Your task to perform on an android device: install app "Chime – Mobile Banking" Image 0: 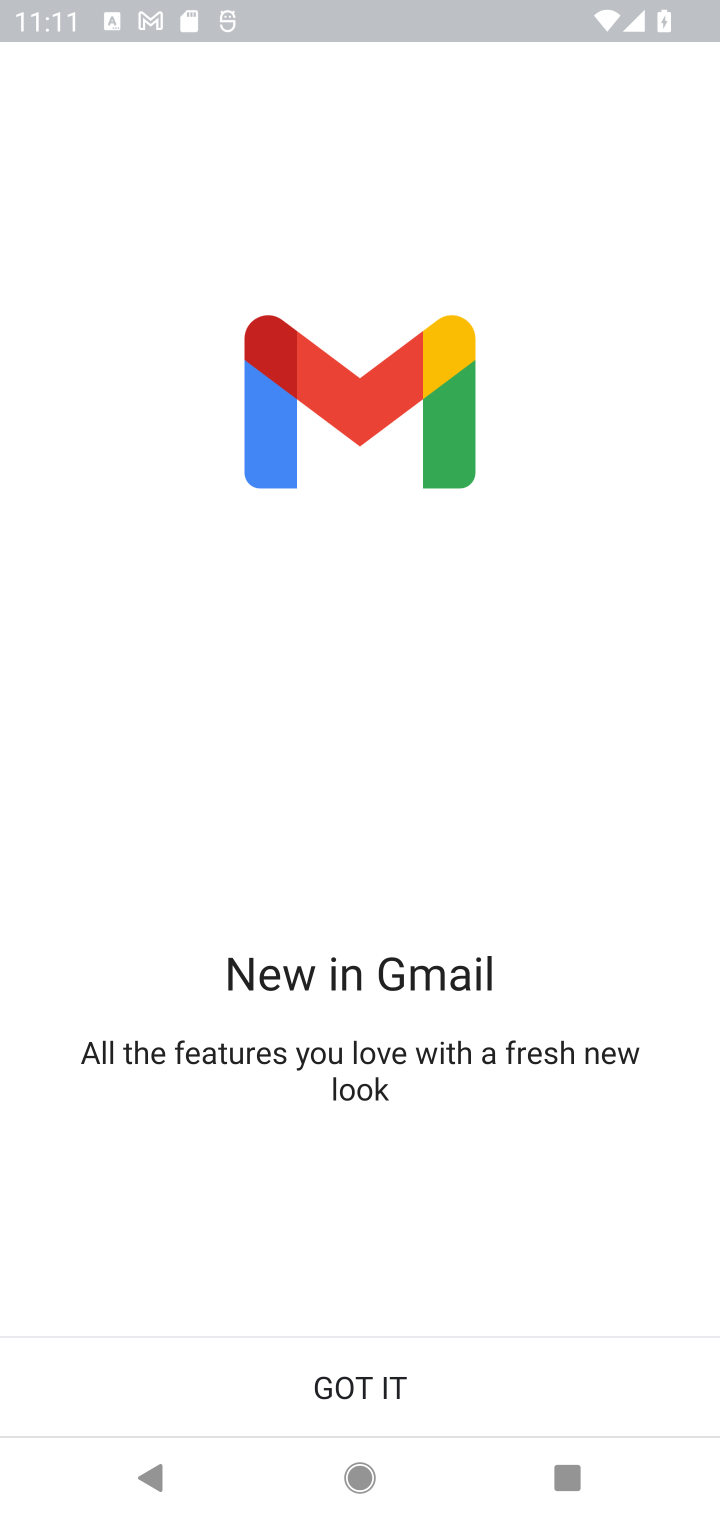
Step 0: press home button
Your task to perform on an android device: install app "Chime – Mobile Banking" Image 1: 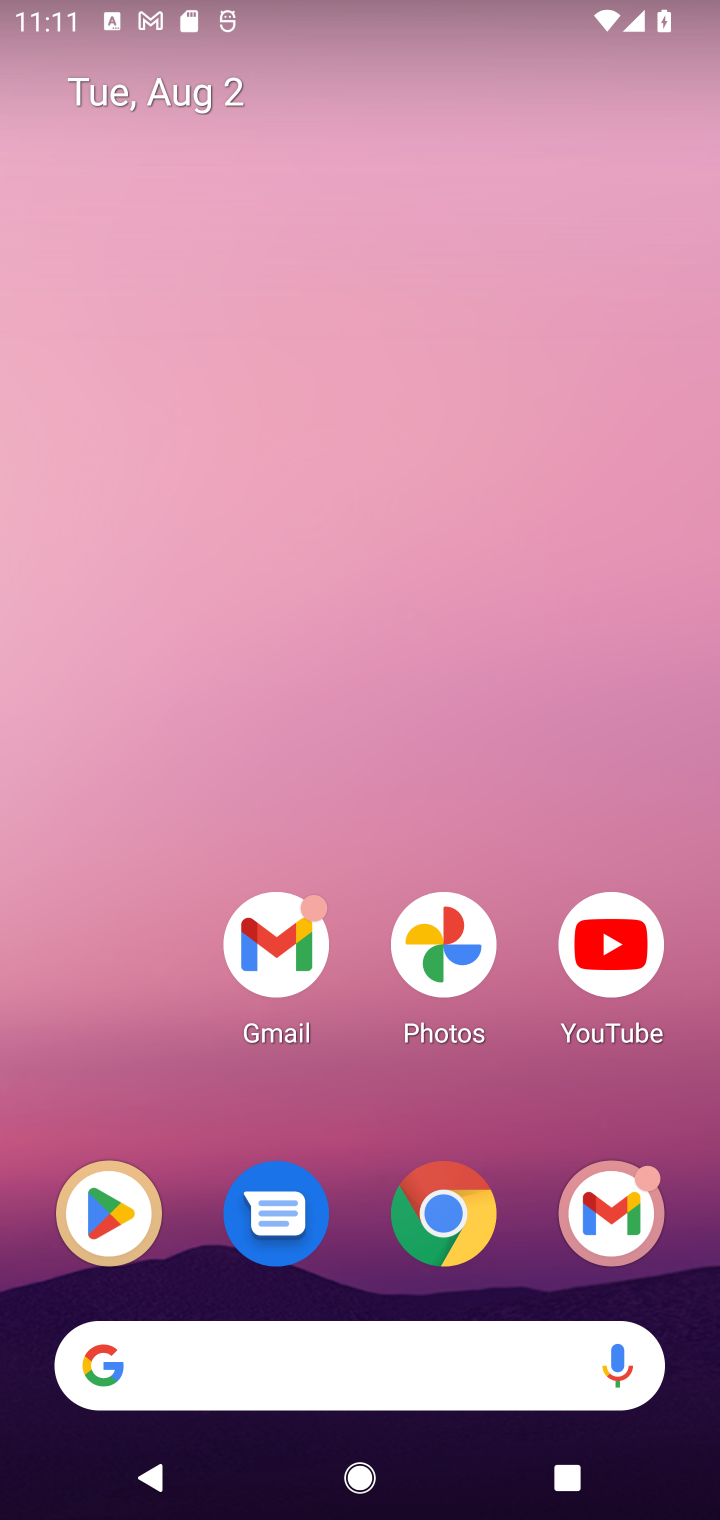
Step 1: click (106, 1239)
Your task to perform on an android device: install app "Chime – Mobile Banking" Image 2: 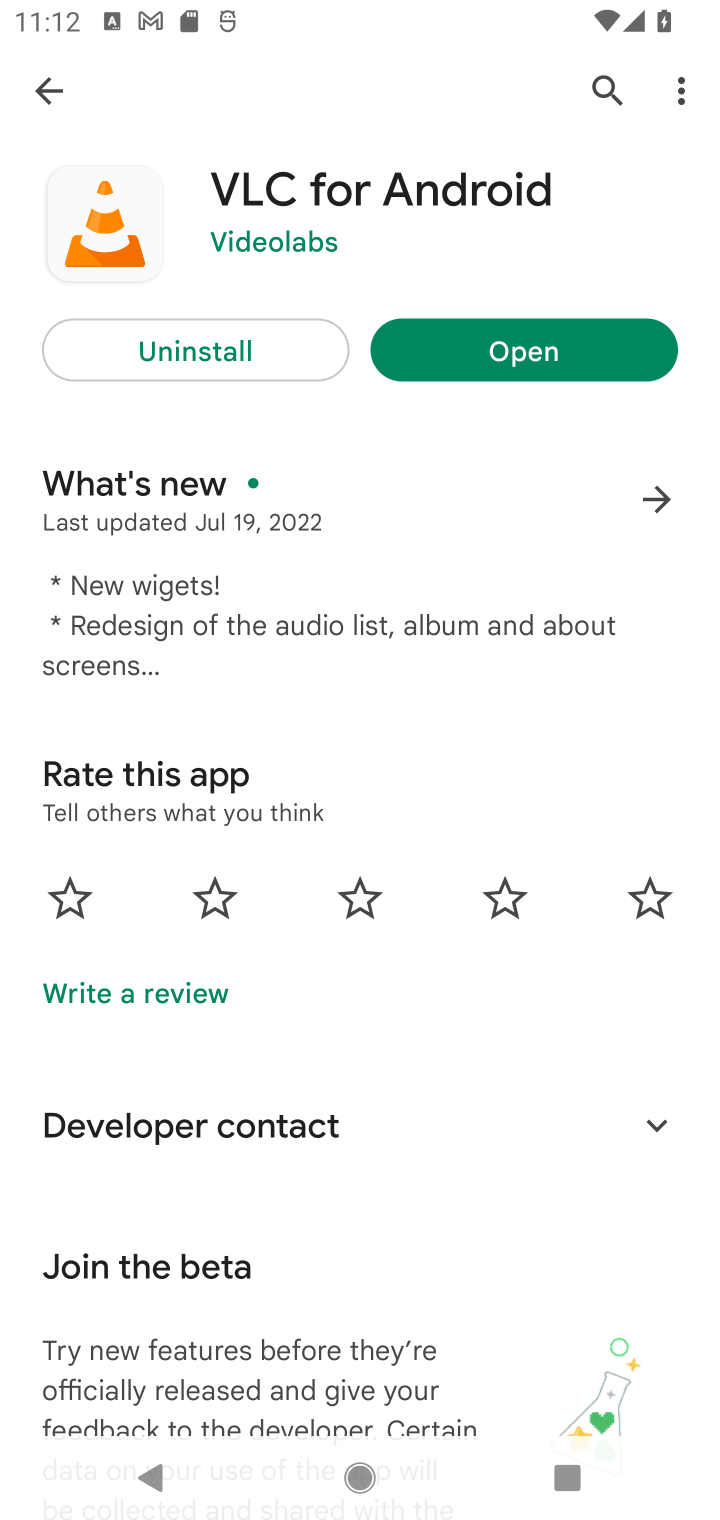
Step 2: click (56, 87)
Your task to perform on an android device: install app "Chime – Mobile Banking" Image 3: 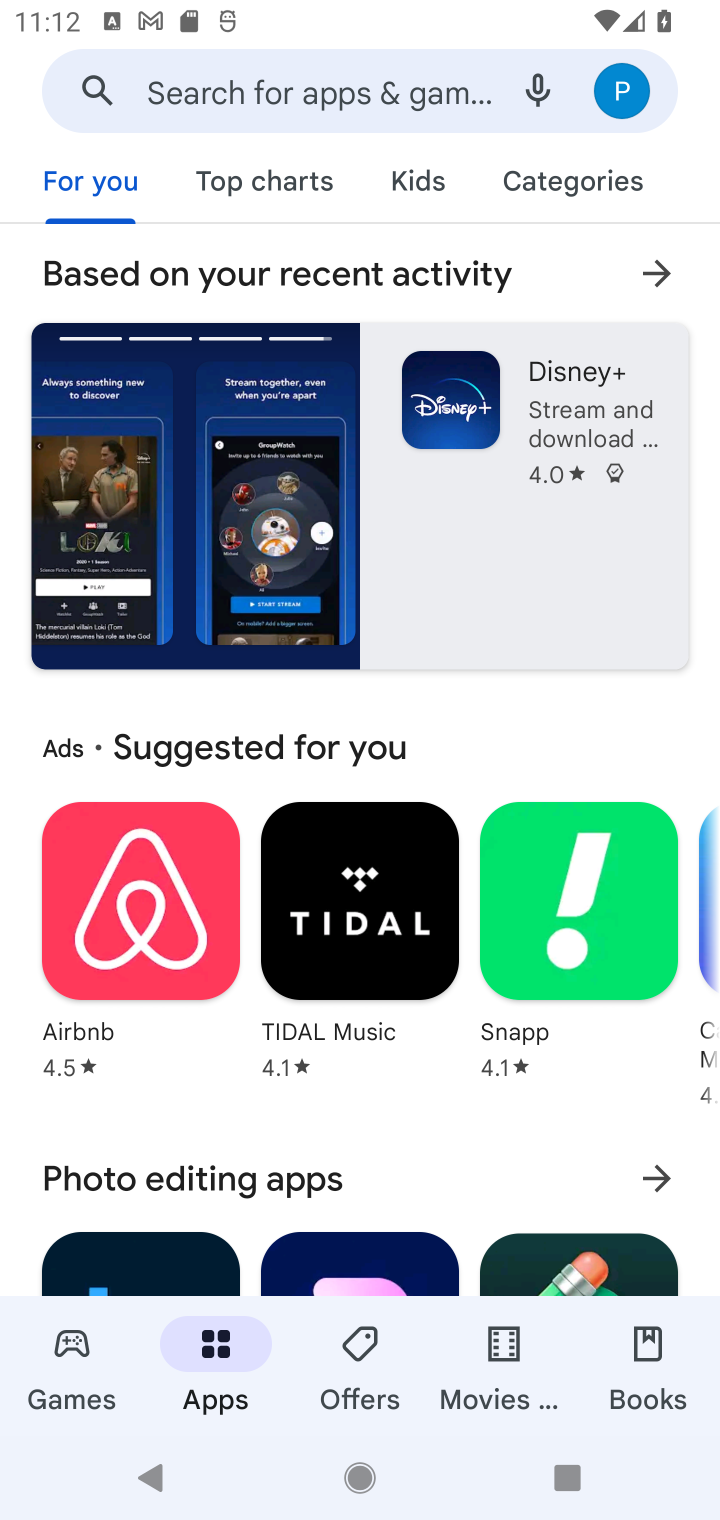
Step 3: click (344, 67)
Your task to perform on an android device: install app "Chime – Mobile Banking" Image 4: 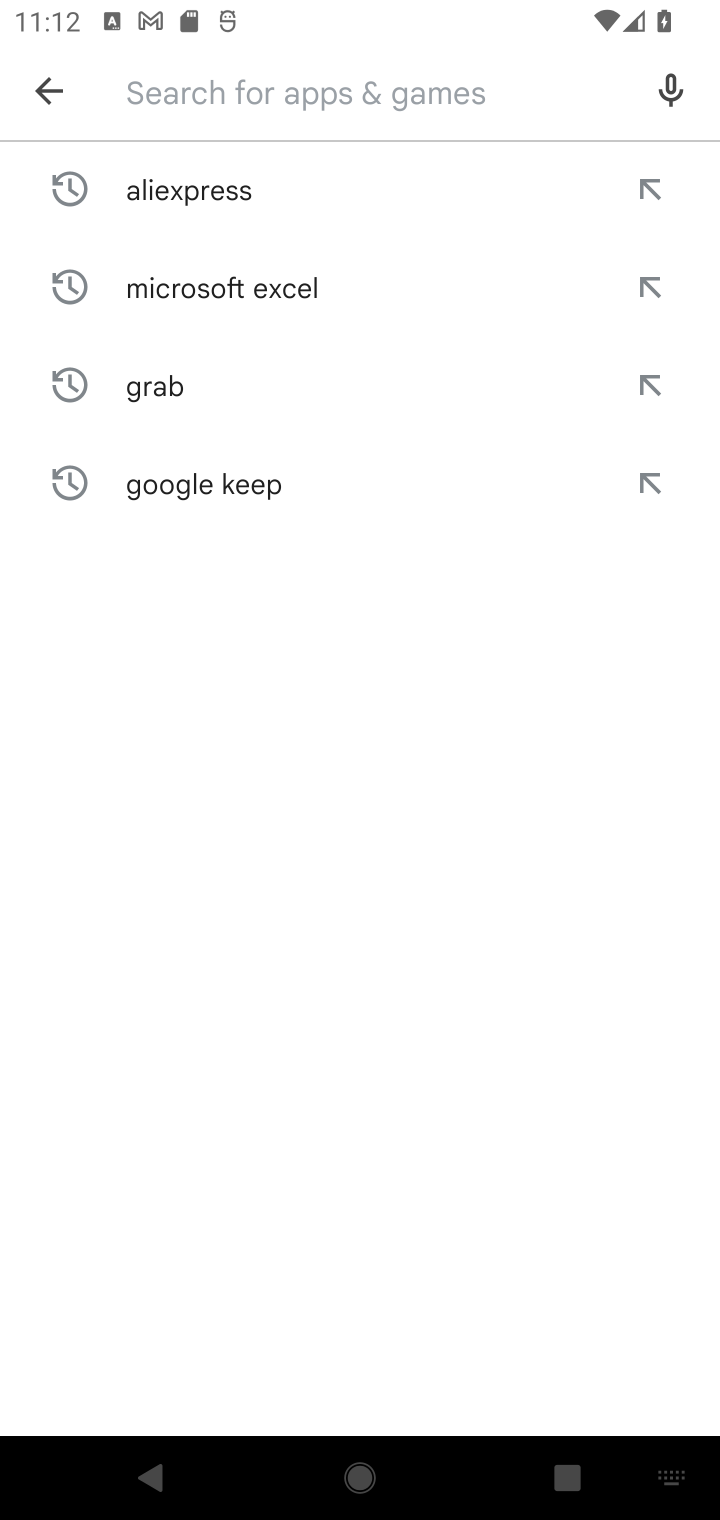
Step 4: type "Chime"
Your task to perform on an android device: install app "Chime – Mobile Banking" Image 5: 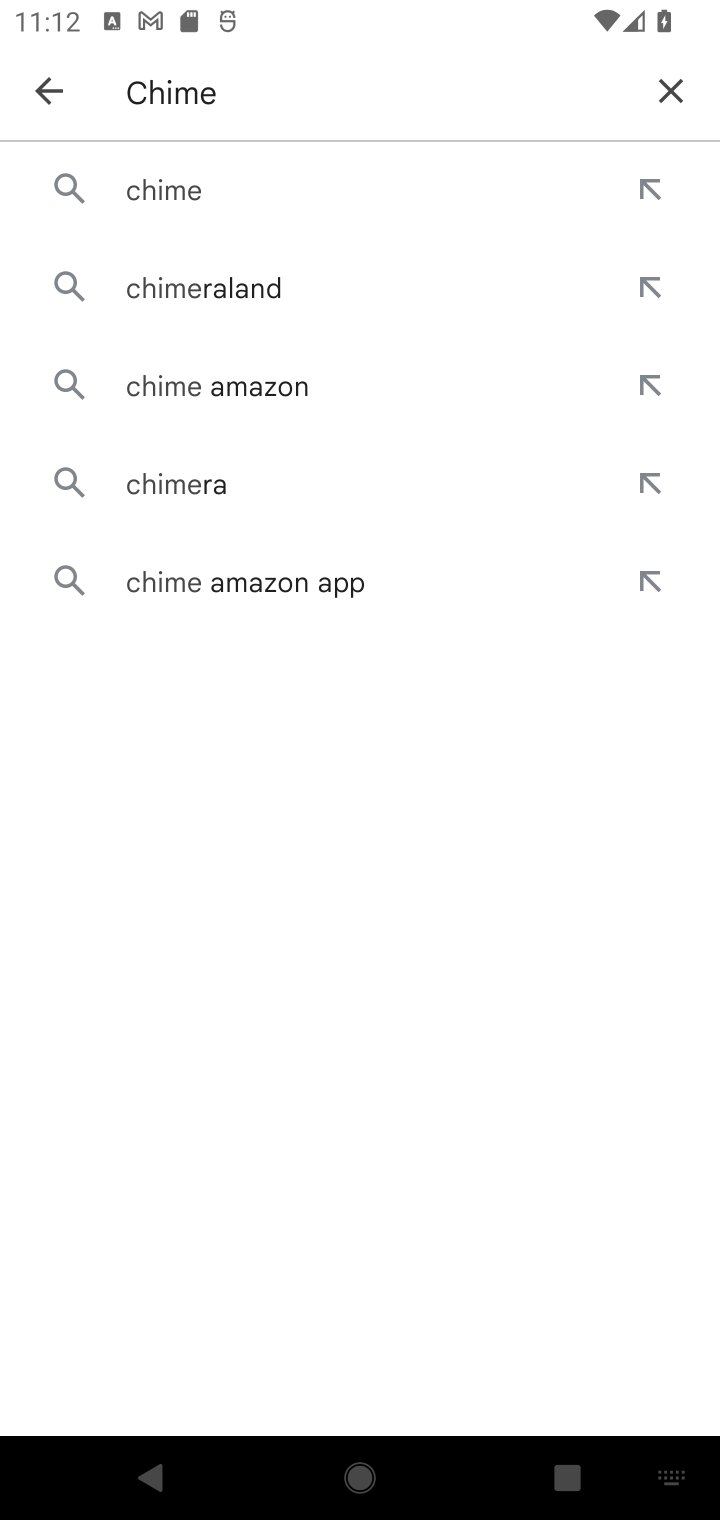
Step 5: click (146, 182)
Your task to perform on an android device: install app "Chime – Mobile Banking" Image 6: 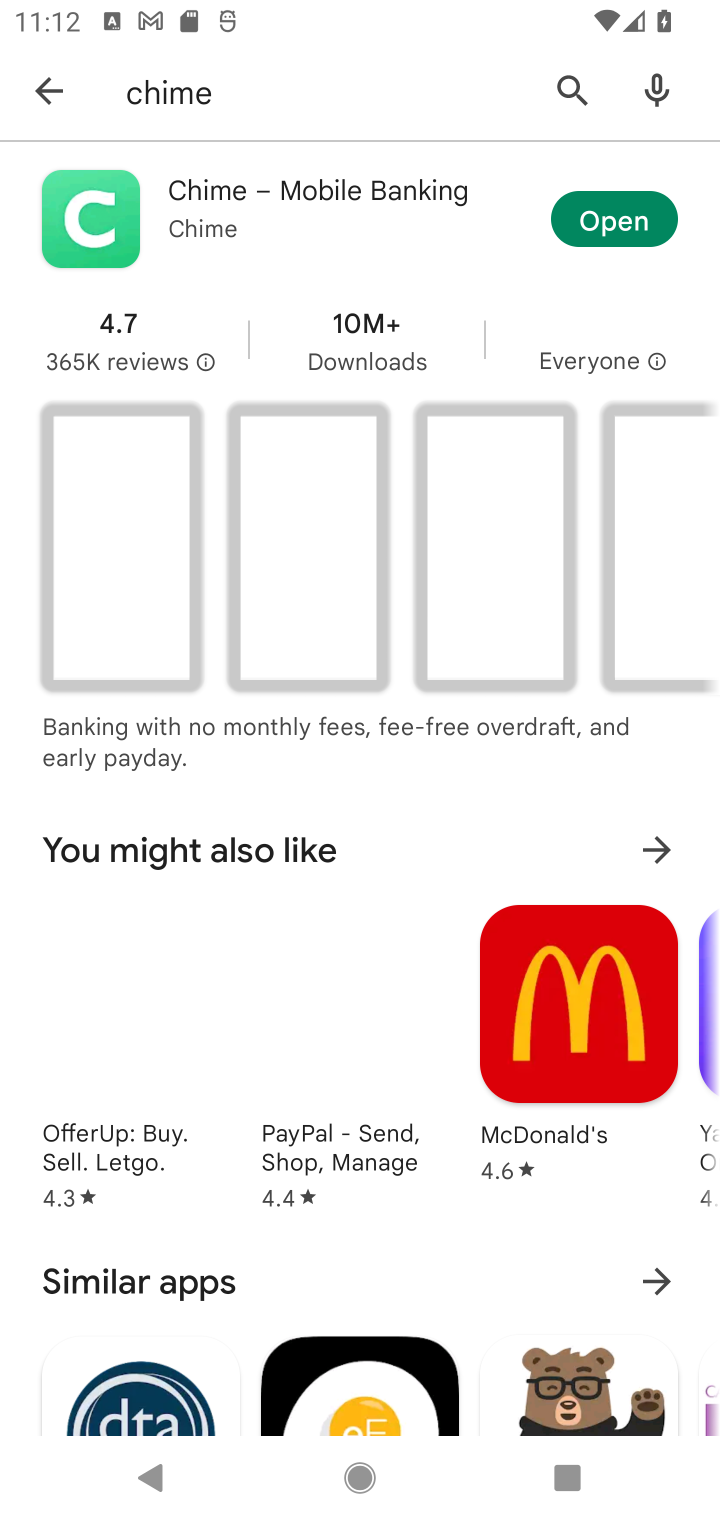
Step 6: click (608, 209)
Your task to perform on an android device: install app "Chime – Mobile Banking" Image 7: 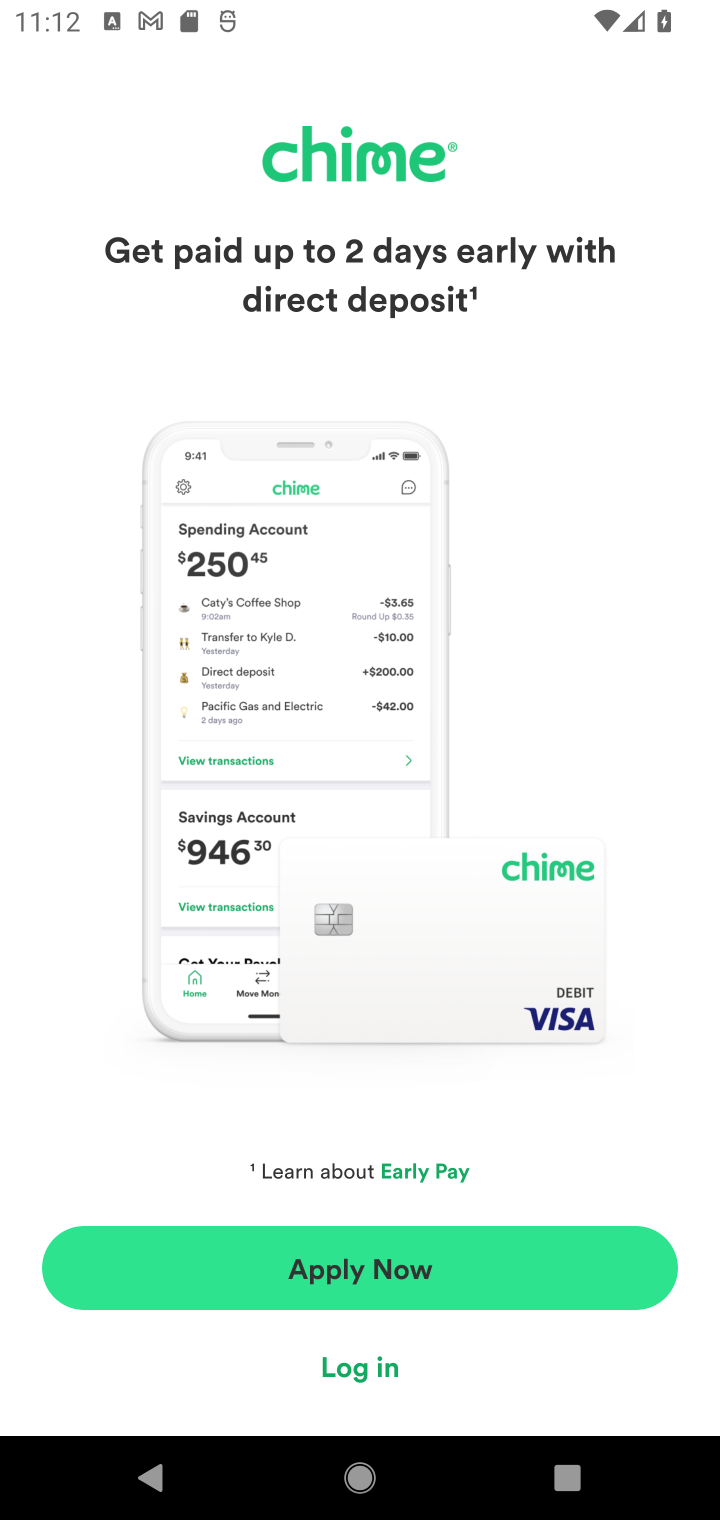
Step 7: task complete